Your task to perform on an android device: What is the news today? Image 0: 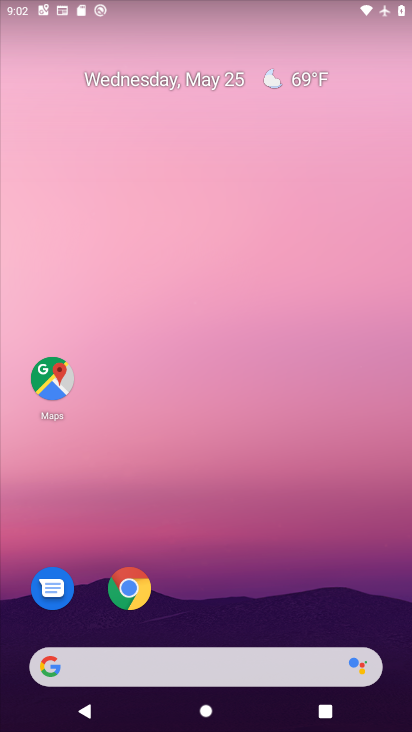
Step 0: drag from (0, 243) to (404, 389)
Your task to perform on an android device: What is the news today? Image 1: 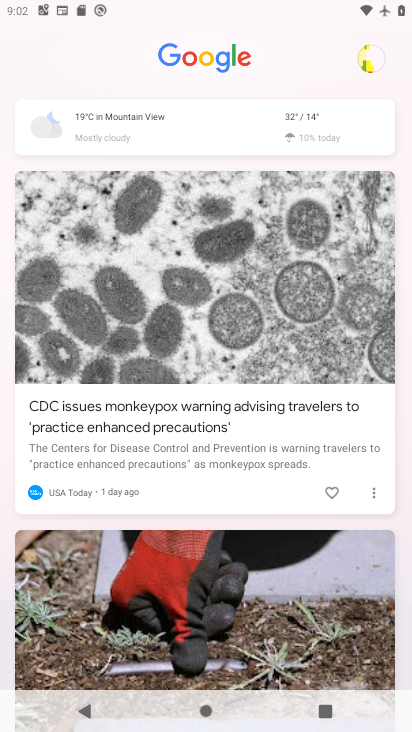
Step 1: task complete